Your task to perform on an android device: uninstall "Venmo" Image 0: 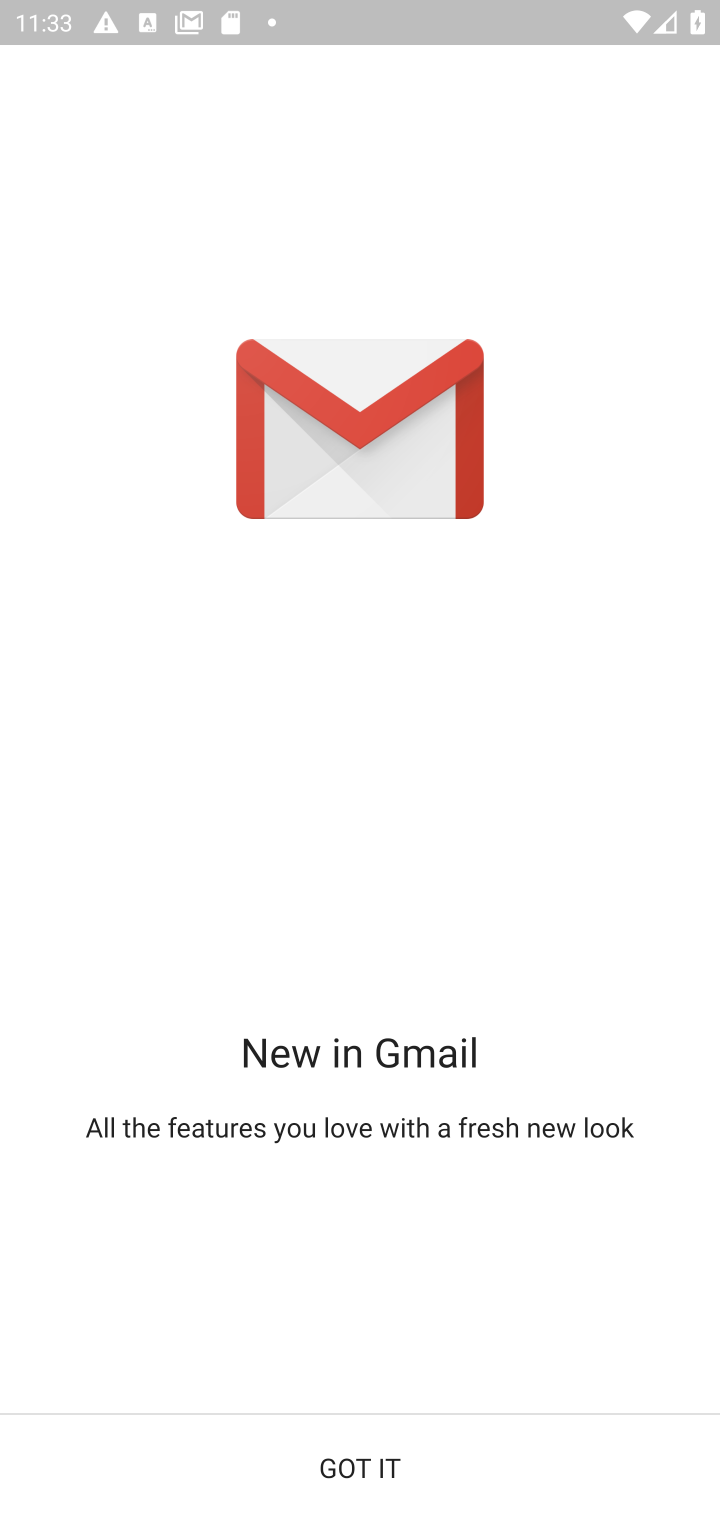
Step 0: press home button
Your task to perform on an android device: uninstall "Venmo" Image 1: 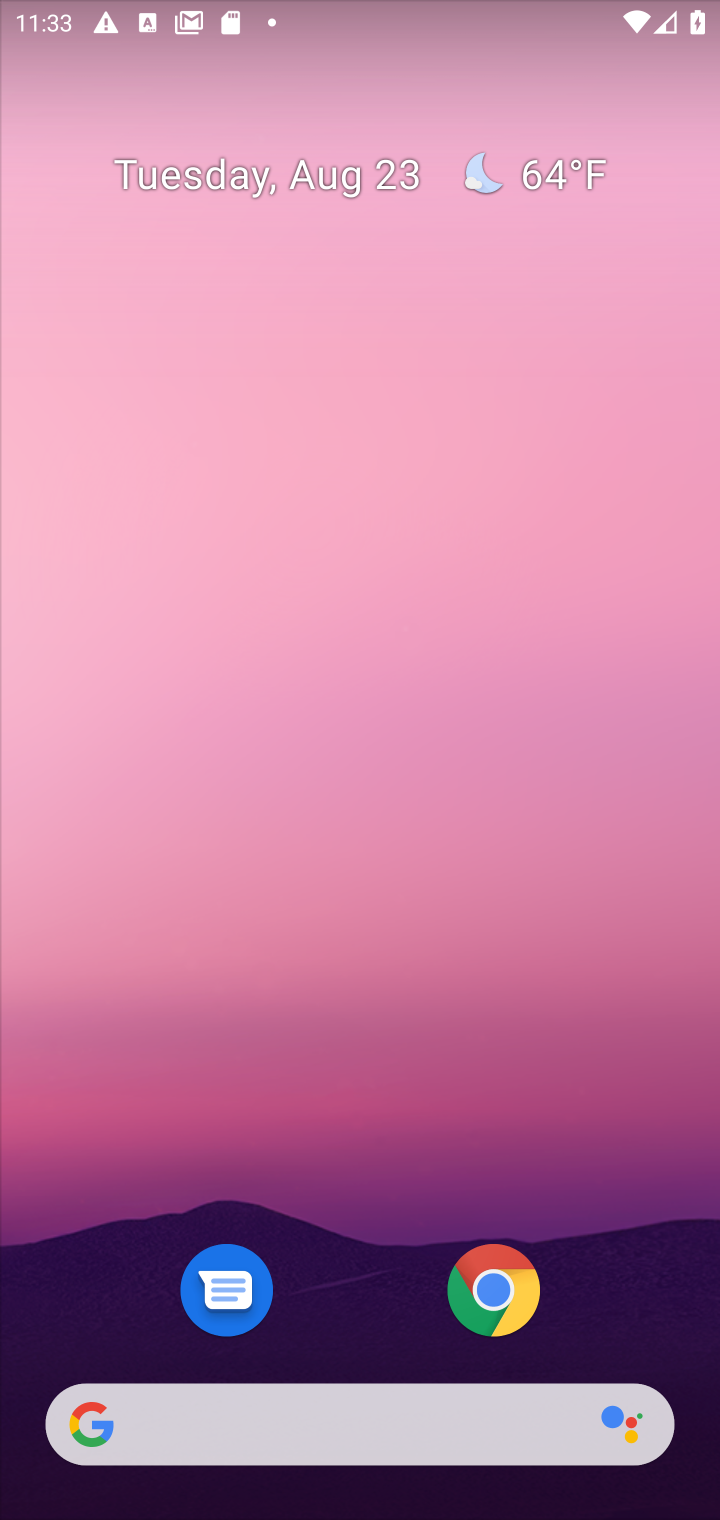
Step 1: drag from (373, 1253) to (411, 312)
Your task to perform on an android device: uninstall "Venmo" Image 2: 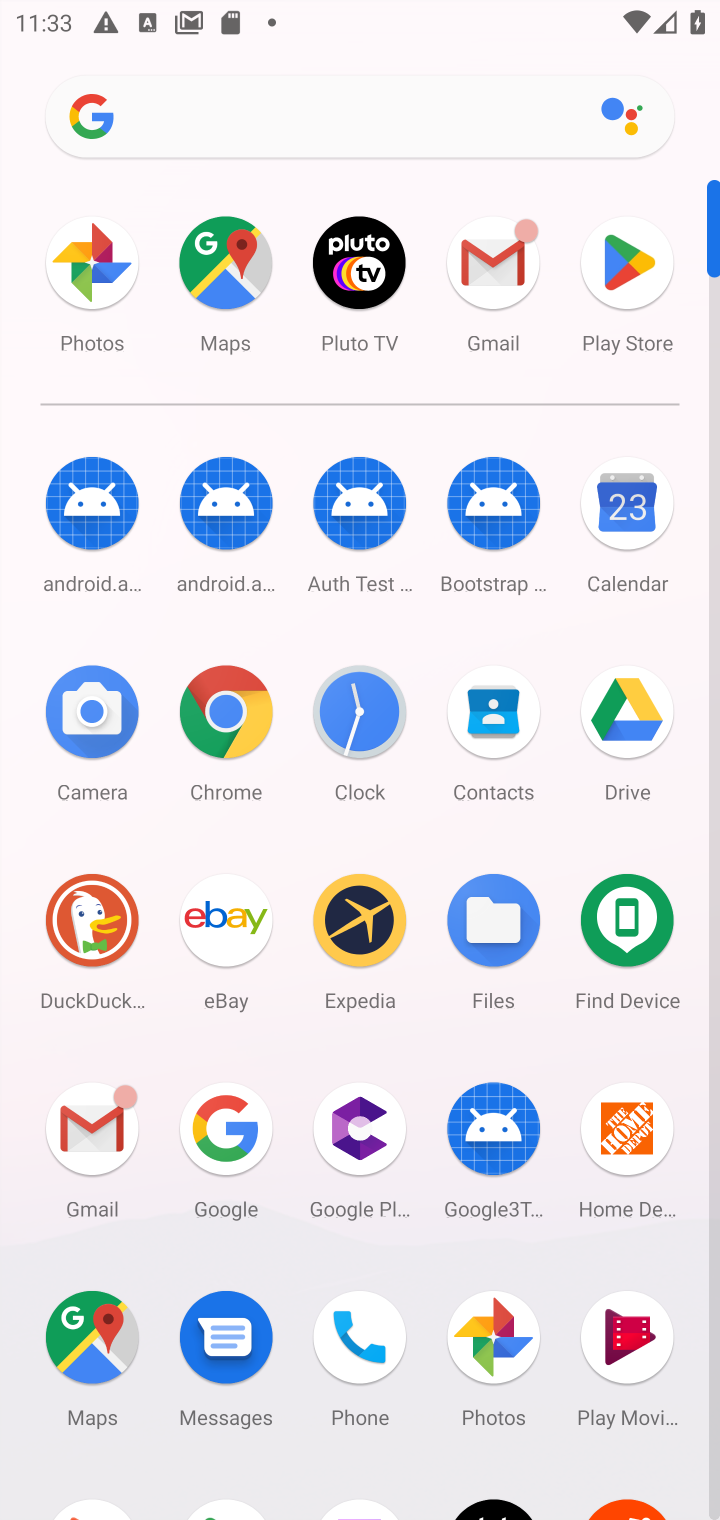
Step 2: click (632, 259)
Your task to perform on an android device: uninstall "Venmo" Image 3: 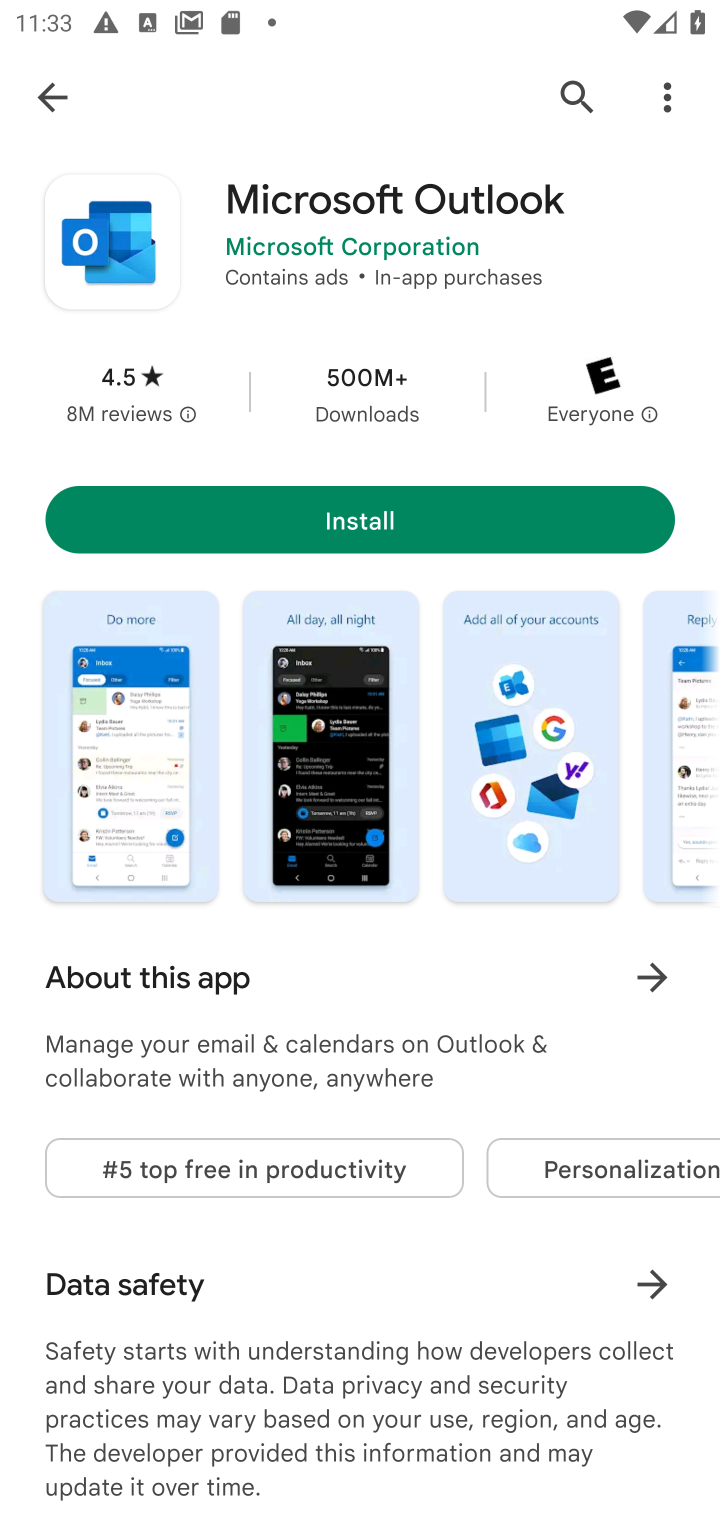
Step 3: click (567, 87)
Your task to perform on an android device: uninstall "Venmo" Image 4: 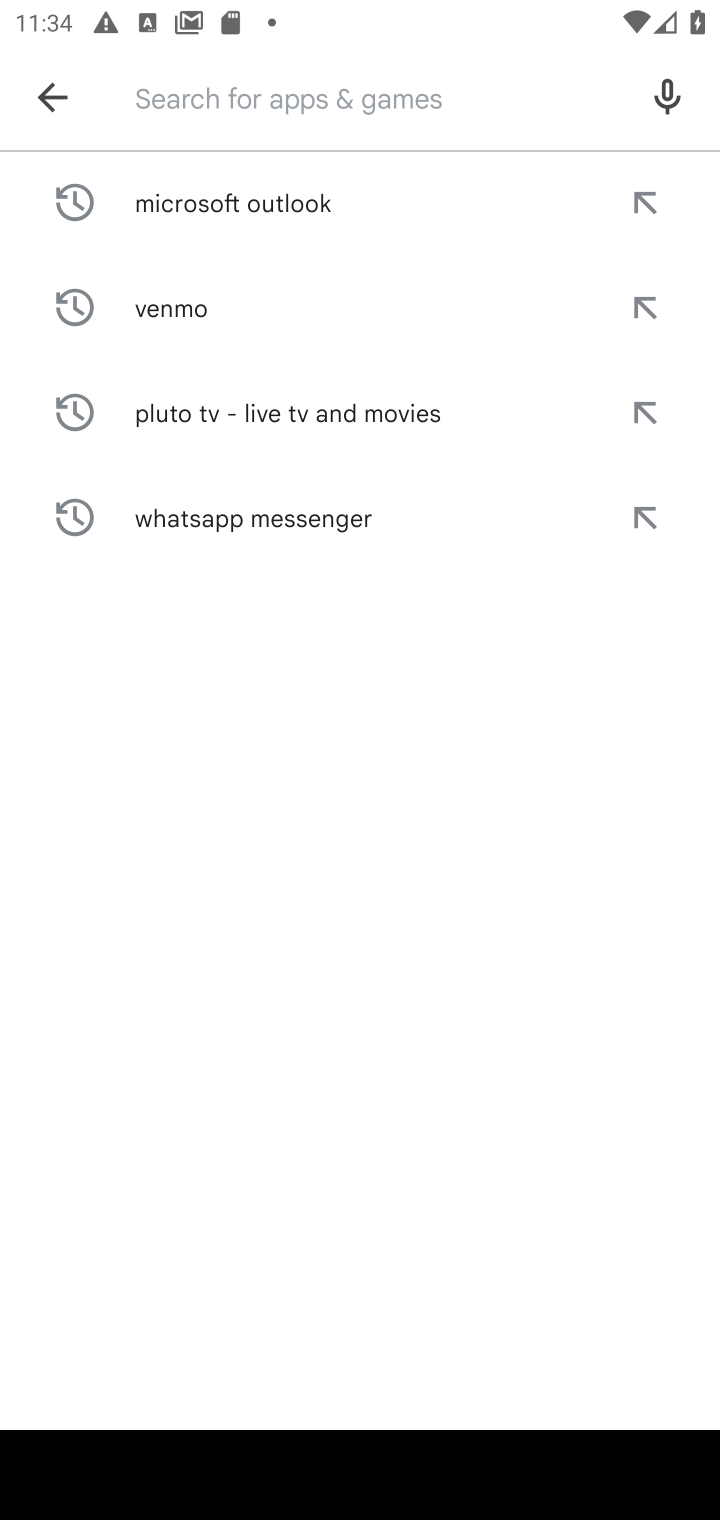
Step 4: type "Venmo"
Your task to perform on an android device: uninstall "Venmo" Image 5: 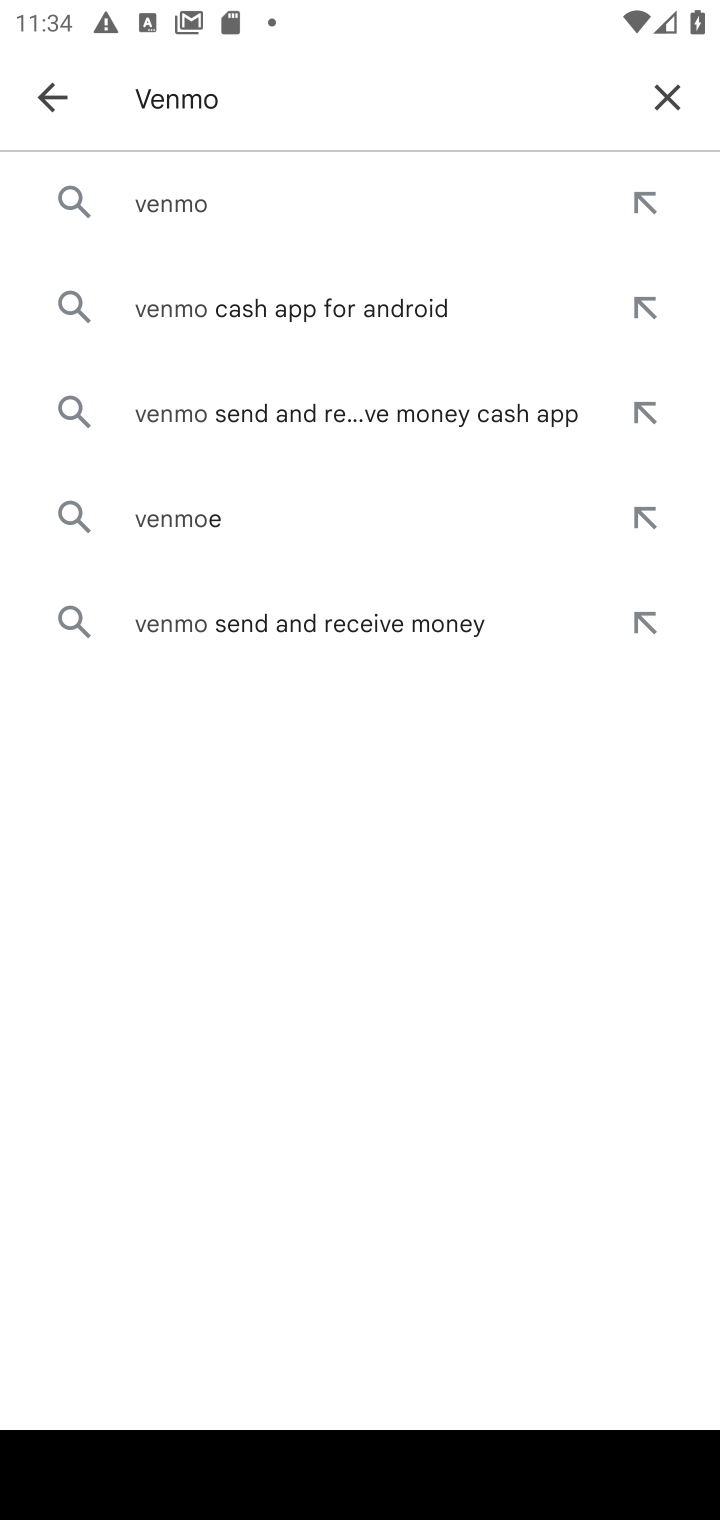
Step 5: click (164, 201)
Your task to perform on an android device: uninstall "Venmo" Image 6: 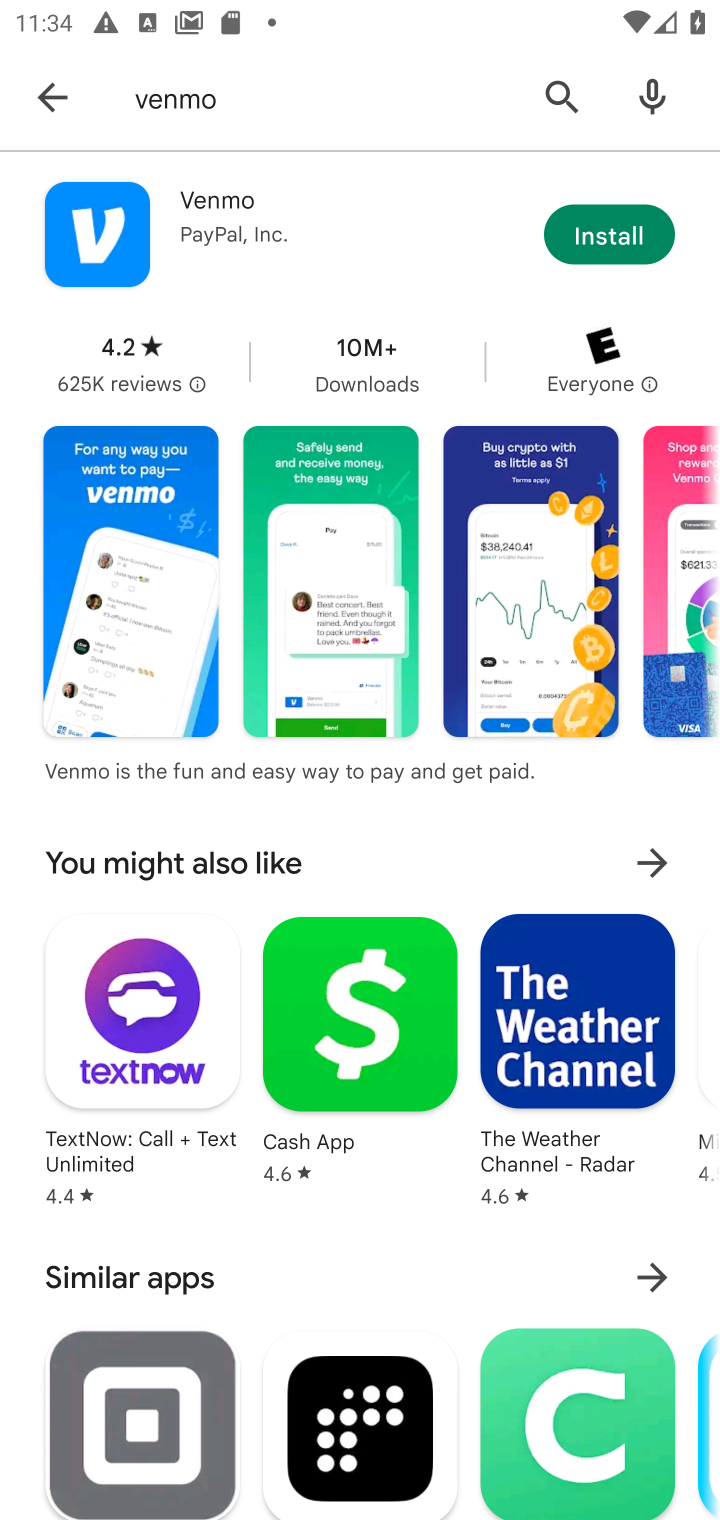
Step 6: task complete